Your task to perform on an android device: Search for Italian restaurants on Maps Image 0: 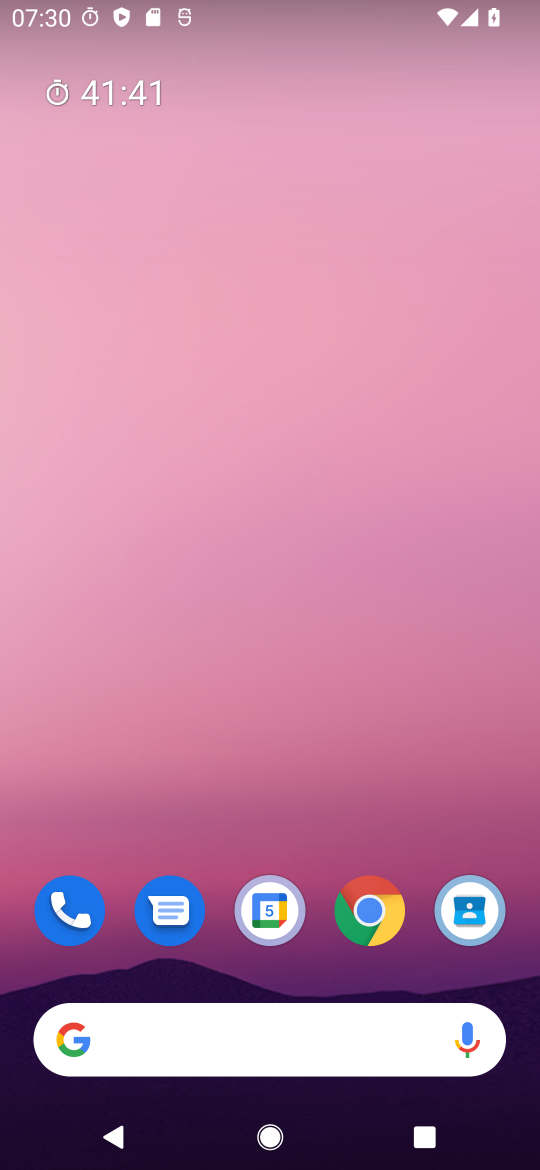
Step 0: drag from (230, 1011) to (159, 245)
Your task to perform on an android device: Search for Italian restaurants on Maps Image 1: 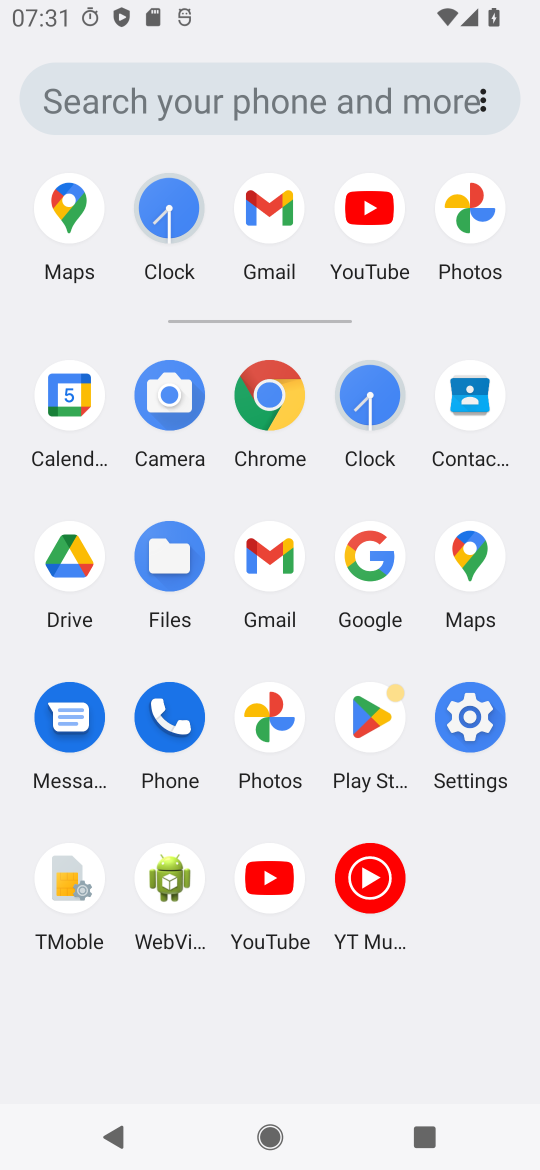
Step 1: click (493, 551)
Your task to perform on an android device: Search for Italian restaurants on Maps Image 2: 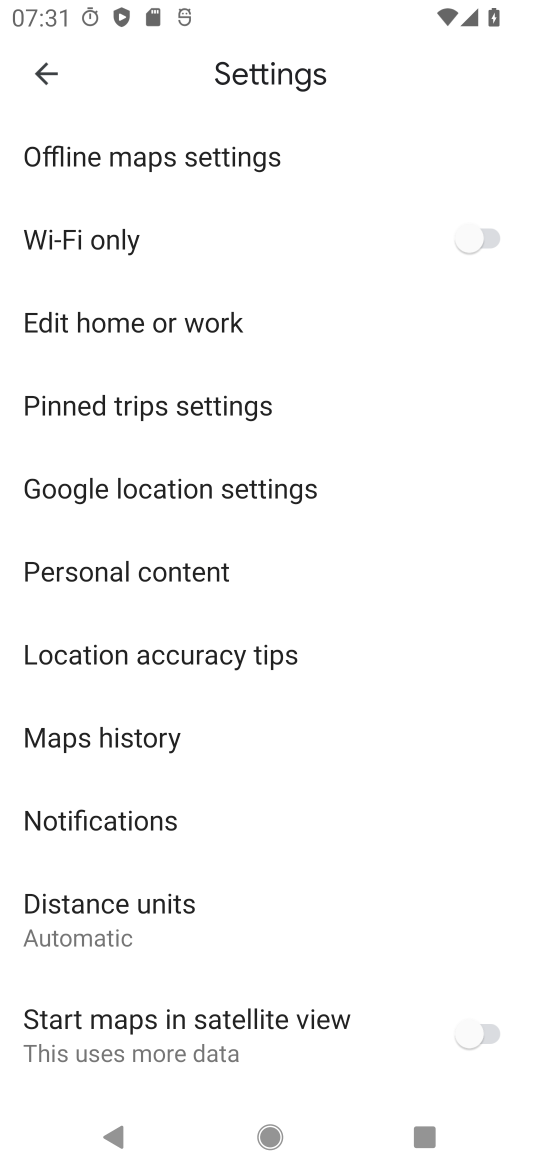
Step 2: press back button
Your task to perform on an android device: Search for Italian restaurants on Maps Image 3: 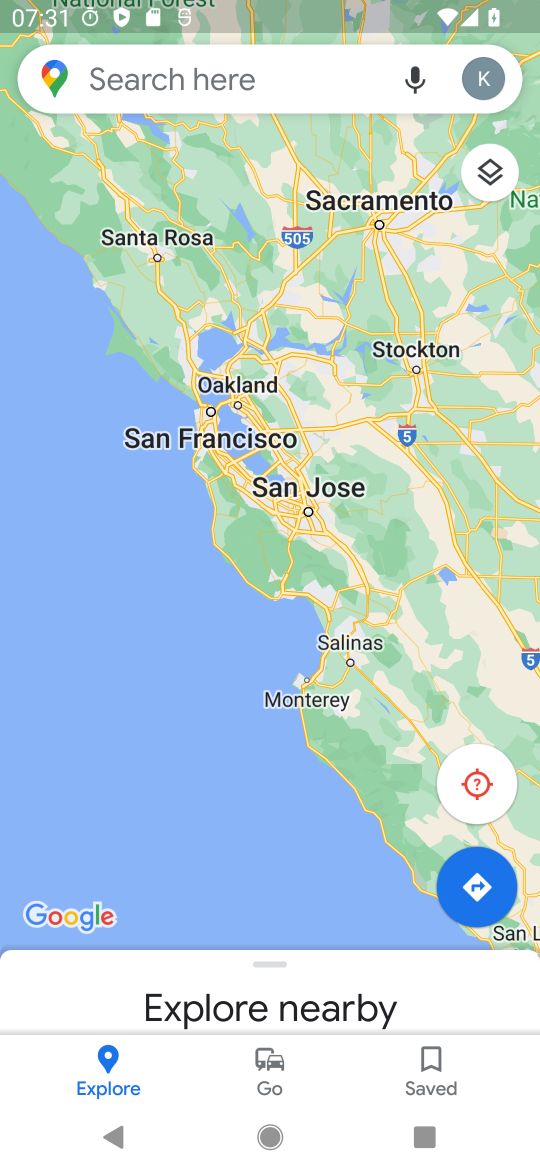
Step 3: click (329, 96)
Your task to perform on an android device: Search for Italian restaurants on Maps Image 4: 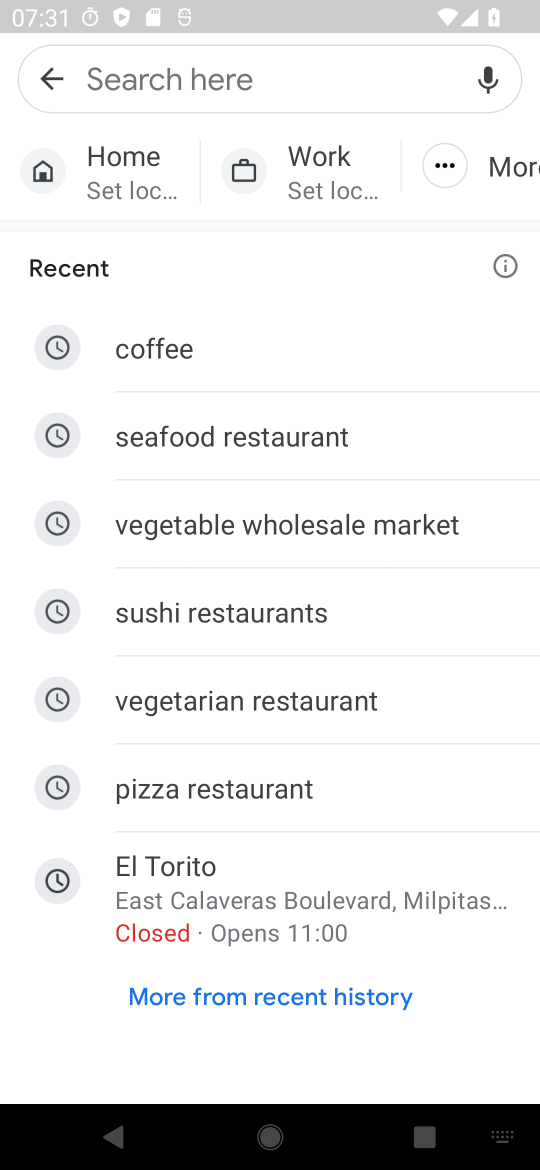
Step 4: type "italian restaurant"
Your task to perform on an android device: Search for Italian restaurants on Maps Image 5: 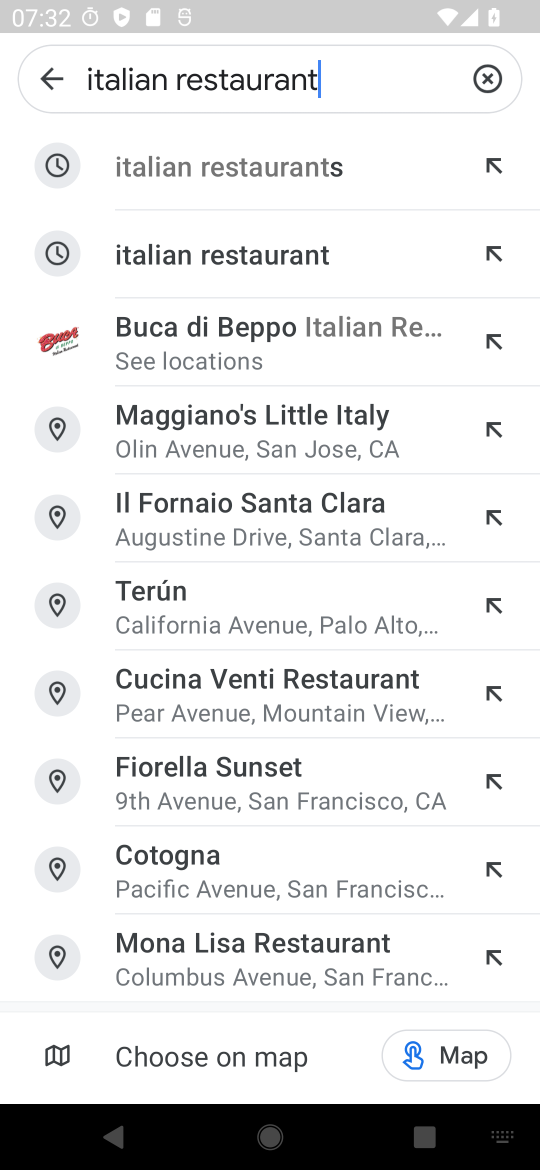
Step 5: click (196, 233)
Your task to perform on an android device: Search for Italian restaurants on Maps Image 6: 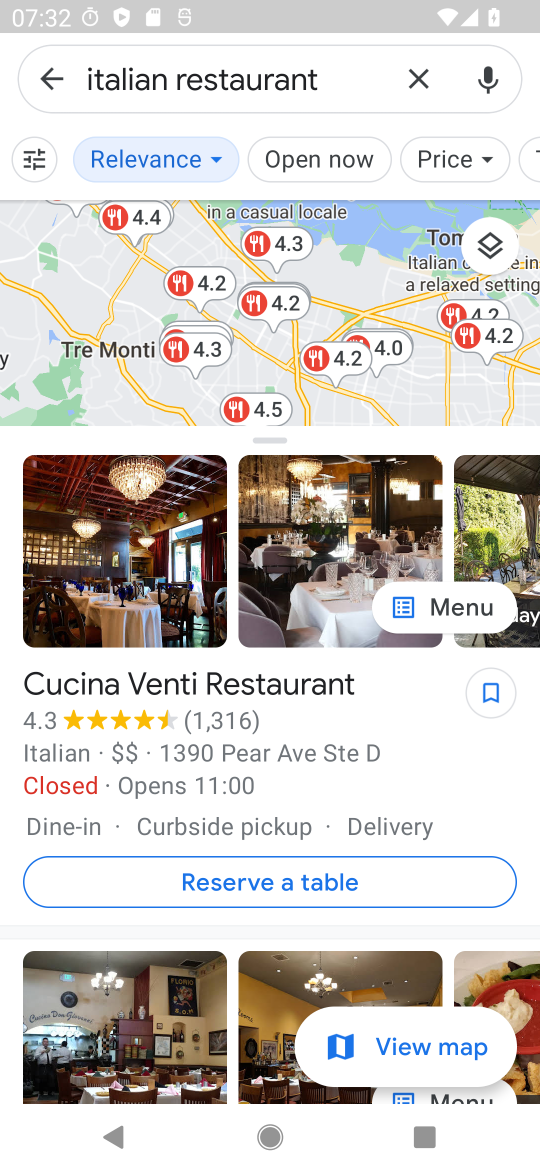
Step 6: click (196, 233)
Your task to perform on an android device: Search for Italian restaurants on Maps Image 7: 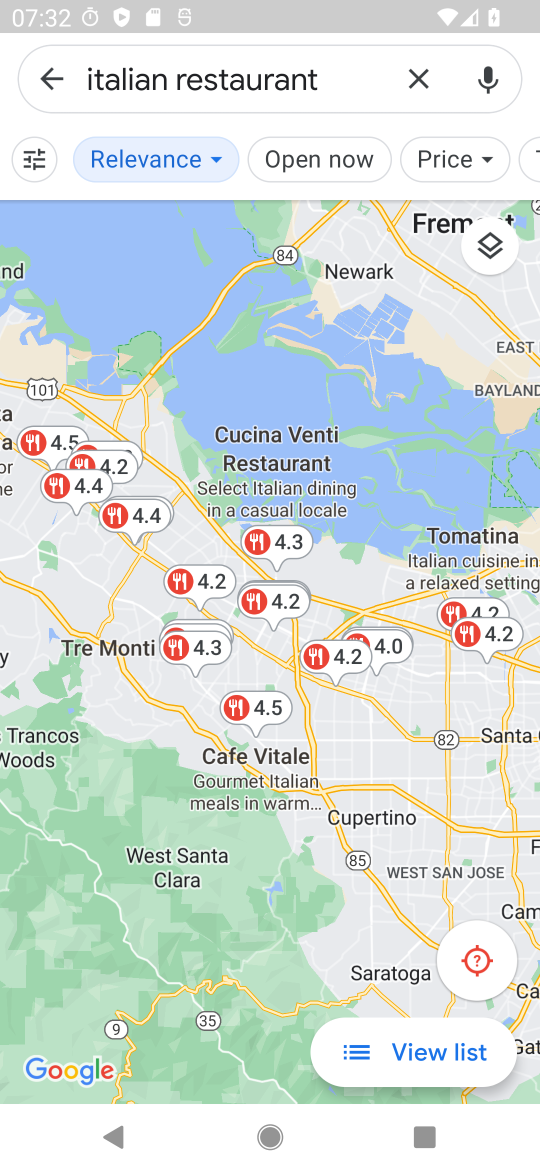
Step 7: task complete